Your task to perform on an android device: install app "ColorNote Notepad Notes" Image 0: 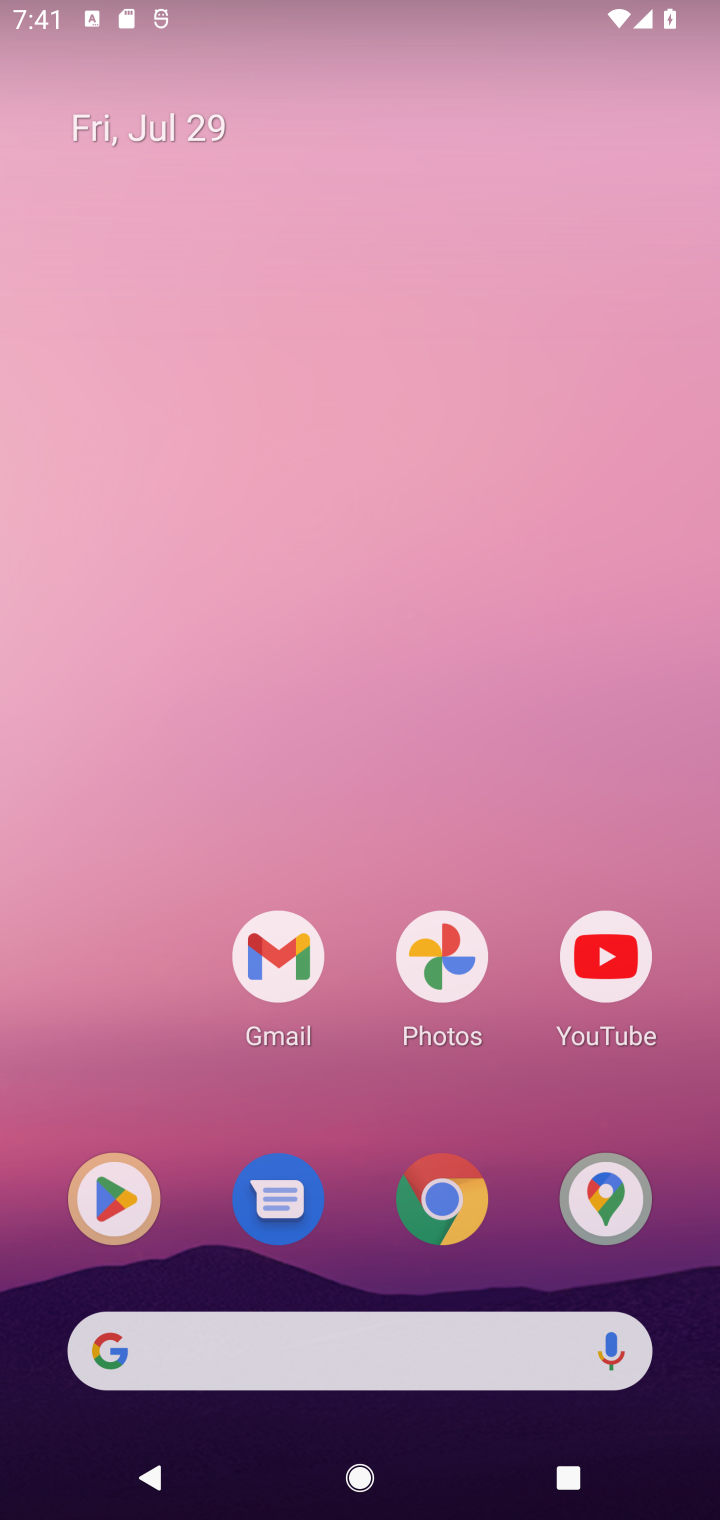
Step 0: press home button
Your task to perform on an android device: install app "ColorNote Notepad Notes" Image 1: 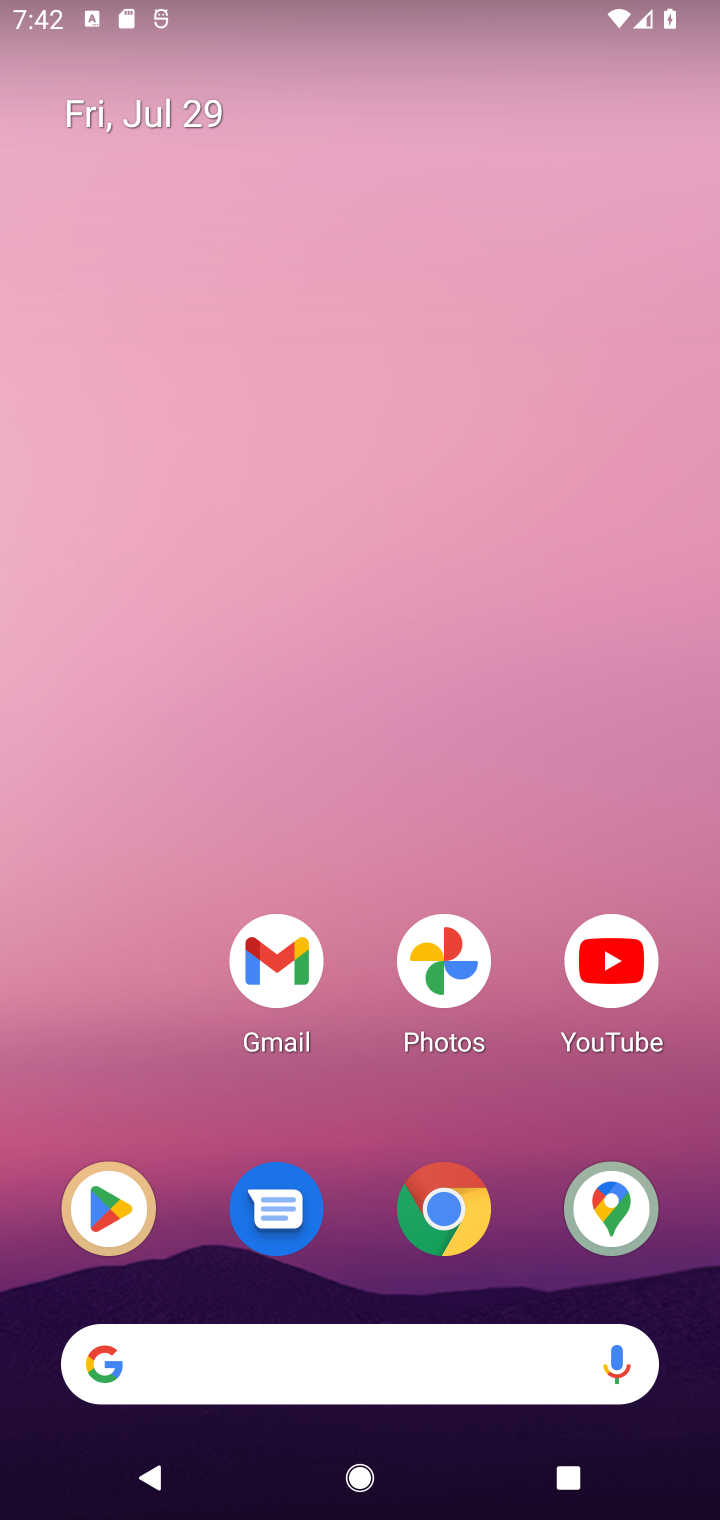
Step 1: click (114, 1212)
Your task to perform on an android device: install app "ColorNote Notepad Notes" Image 2: 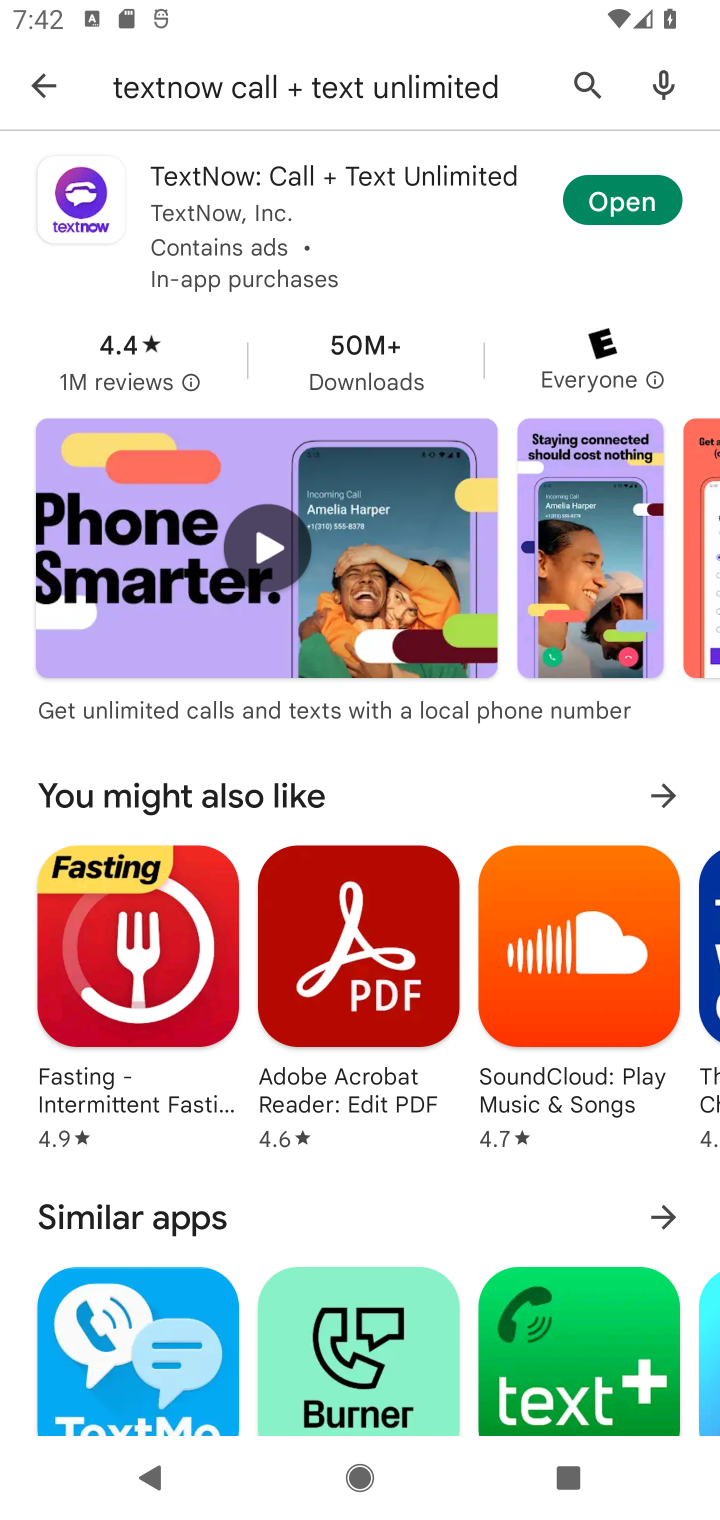
Step 2: click (582, 81)
Your task to perform on an android device: install app "ColorNote Notepad Notes" Image 3: 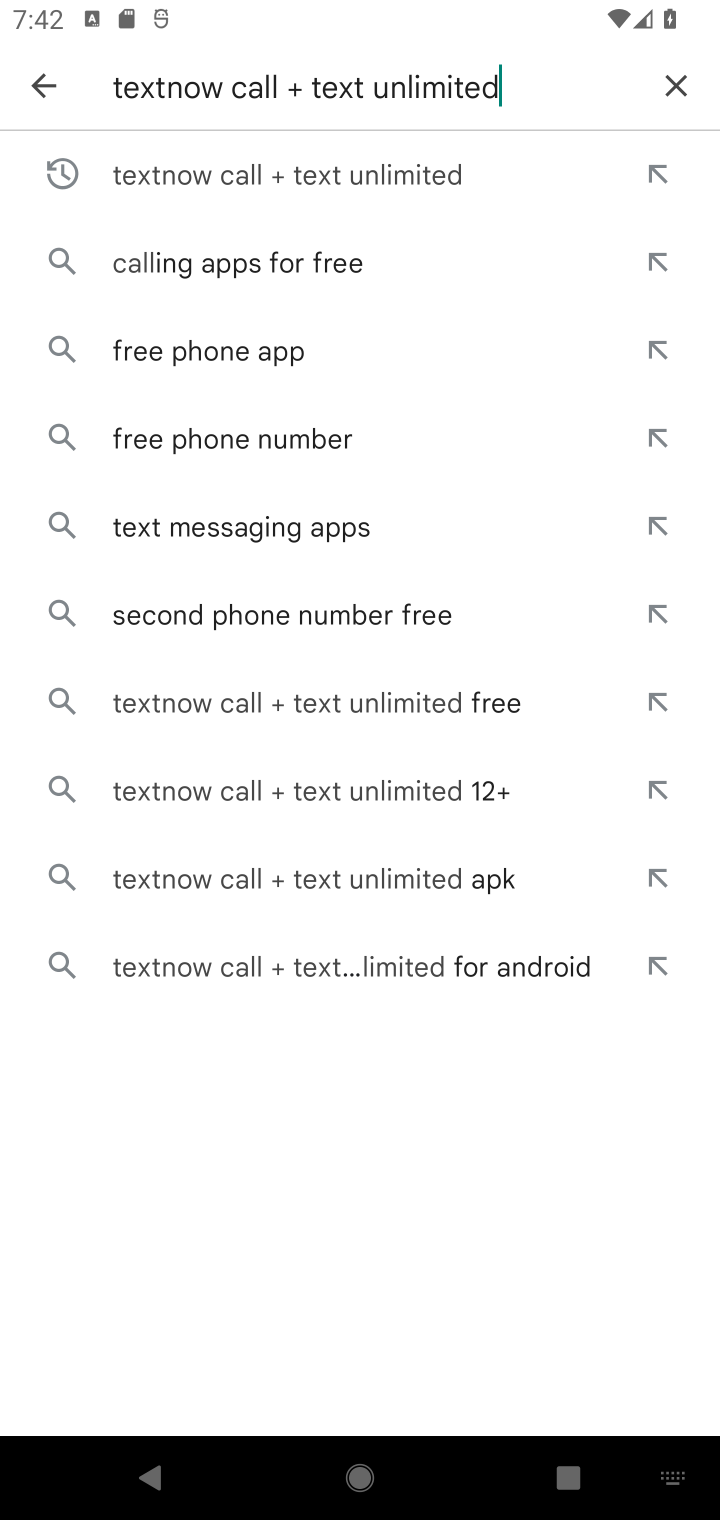
Step 3: click (659, 83)
Your task to perform on an android device: install app "ColorNote Notepad Notes" Image 4: 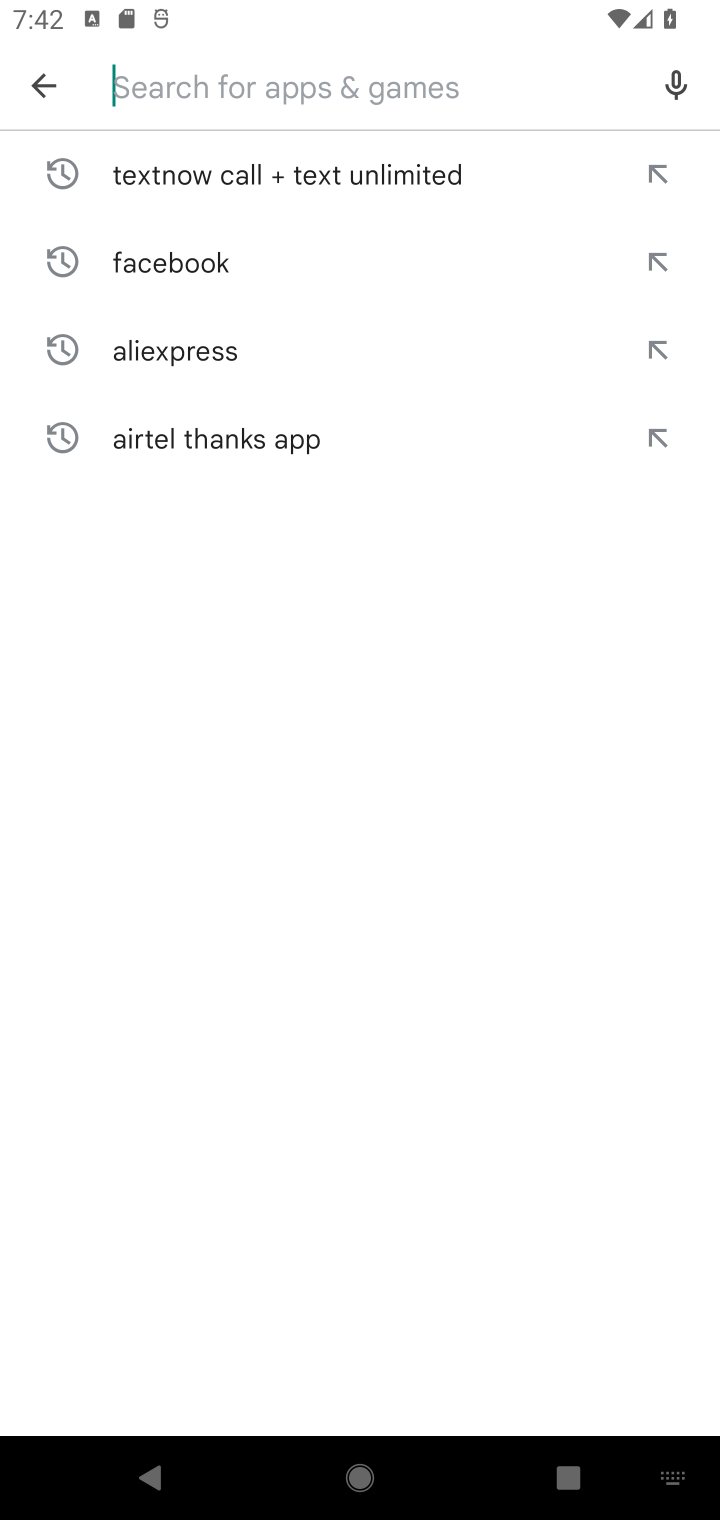
Step 4: click (432, 84)
Your task to perform on an android device: install app "ColorNote Notepad Notes" Image 5: 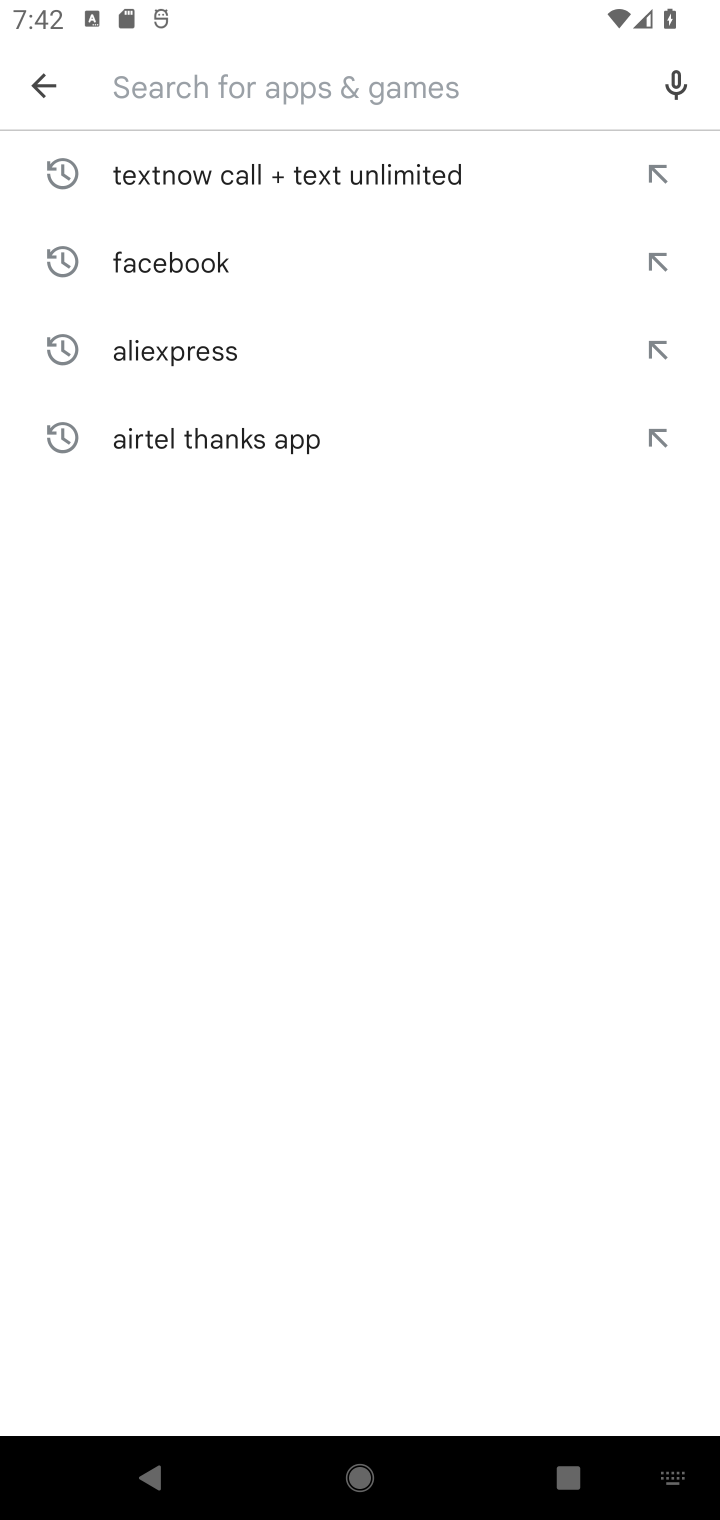
Step 5: type "ColorNote Notepad Notes"
Your task to perform on an android device: install app "ColorNote Notepad Notes" Image 6: 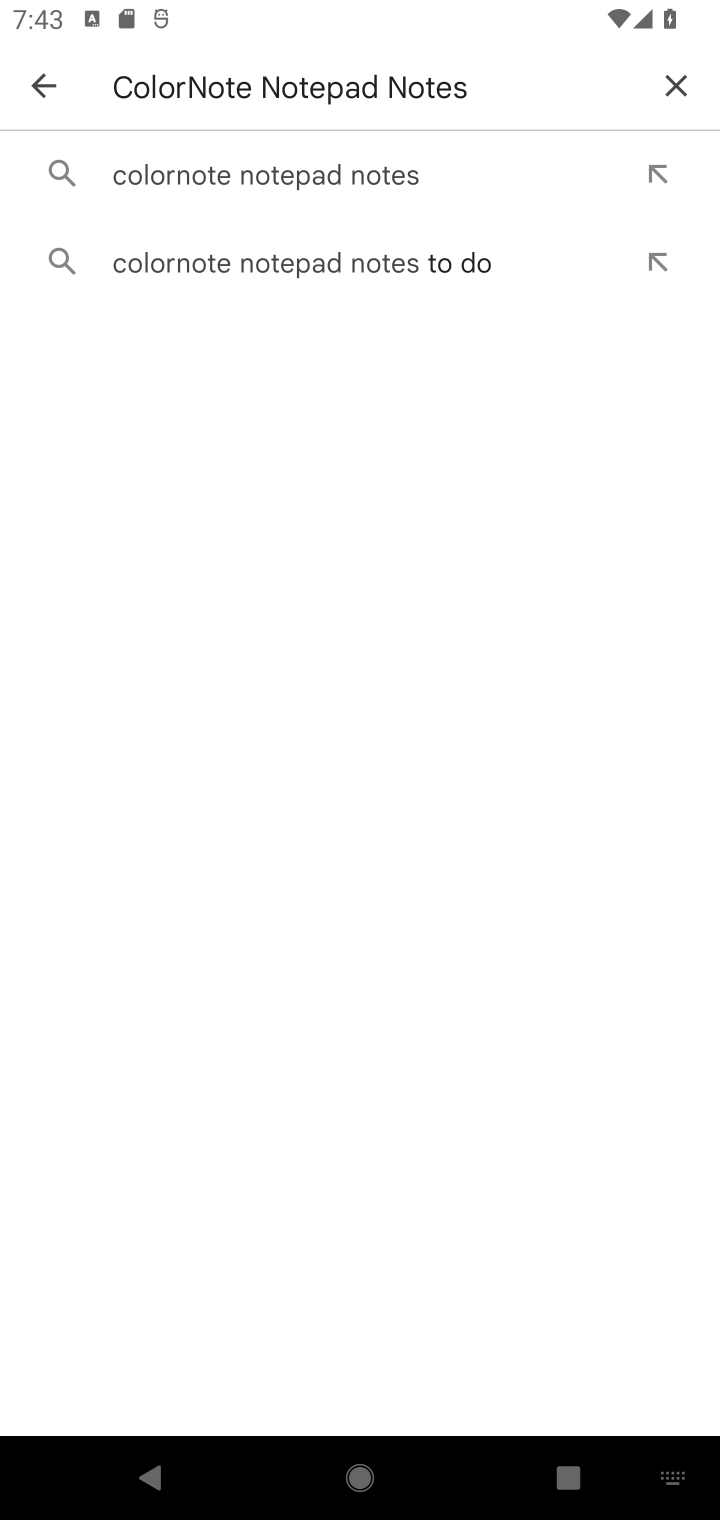
Step 6: click (235, 189)
Your task to perform on an android device: install app "ColorNote Notepad Notes" Image 7: 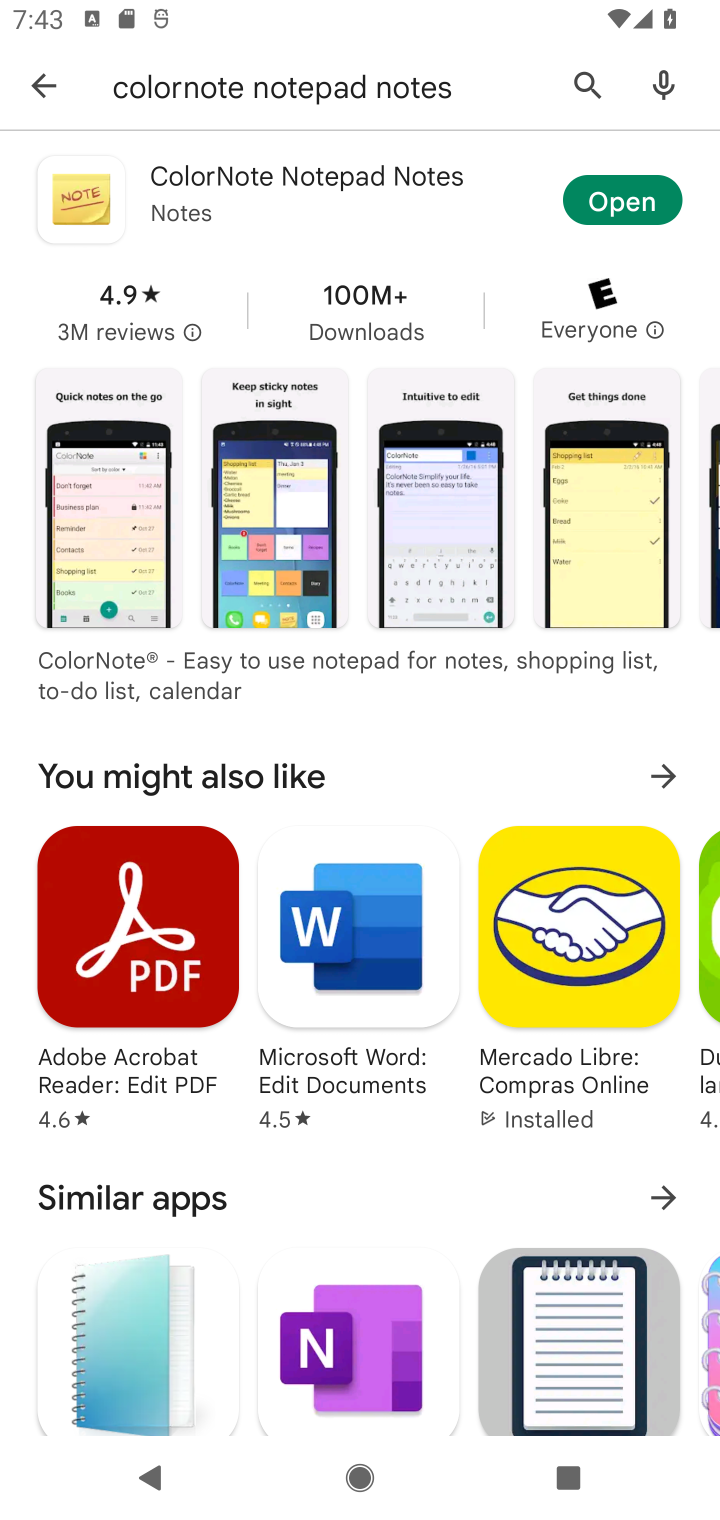
Step 7: task complete